Your task to perform on an android device: set an alarm Image 0: 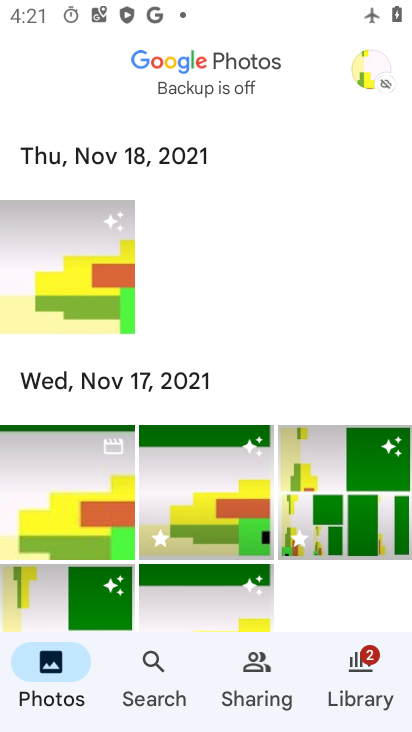
Step 0: press home button
Your task to perform on an android device: set an alarm Image 1: 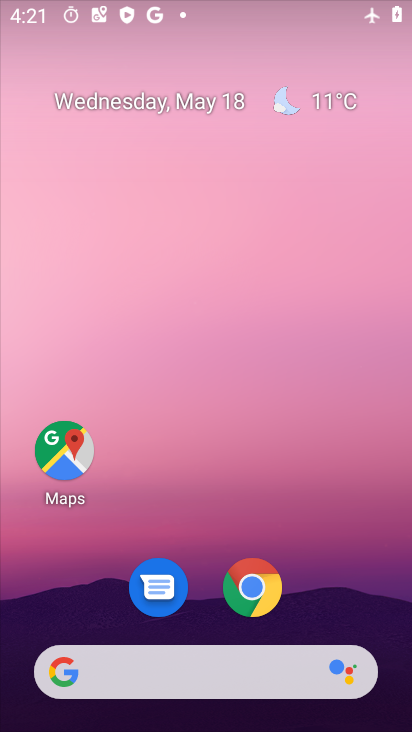
Step 1: drag from (226, 583) to (289, 136)
Your task to perform on an android device: set an alarm Image 2: 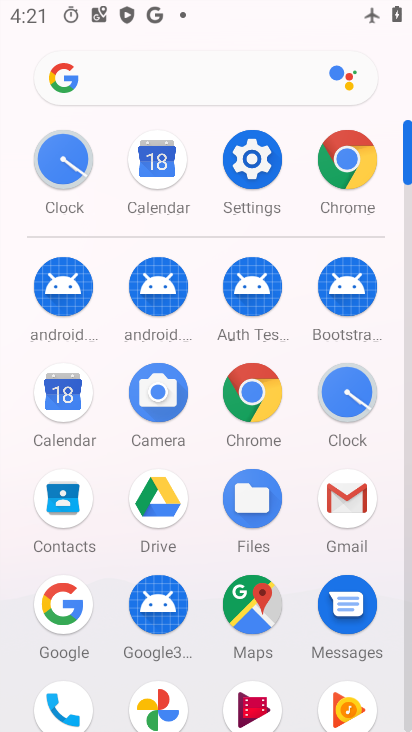
Step 2: click (343, 415)
Your task to perform on an android device: set an alarm Image 3: 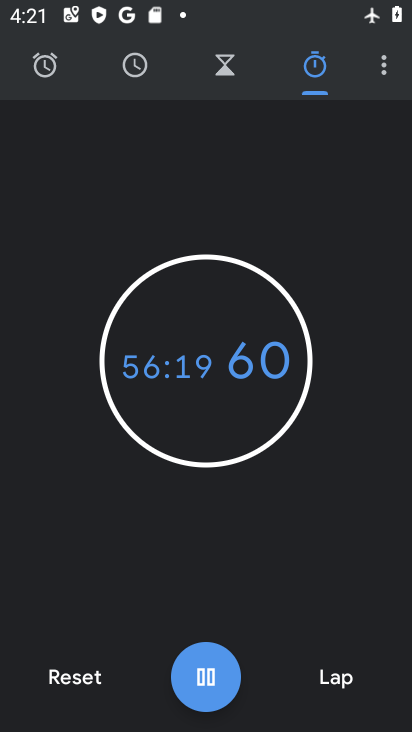
Step 3: click (46, 77)
Your task to perform on an android device: set an alarm Image 4: 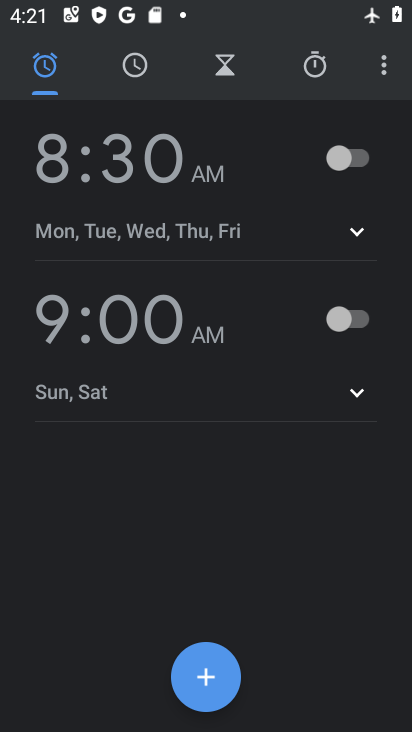
Step 4: click (203, 690)
Your task to perform on an android device: set an alarm Image 5: 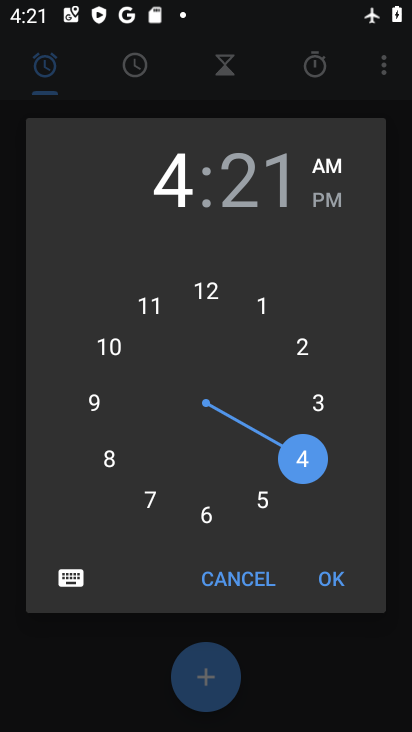
Step 5: click (335, 579)
Your task to perform on an android device: set an alarm Image 6: 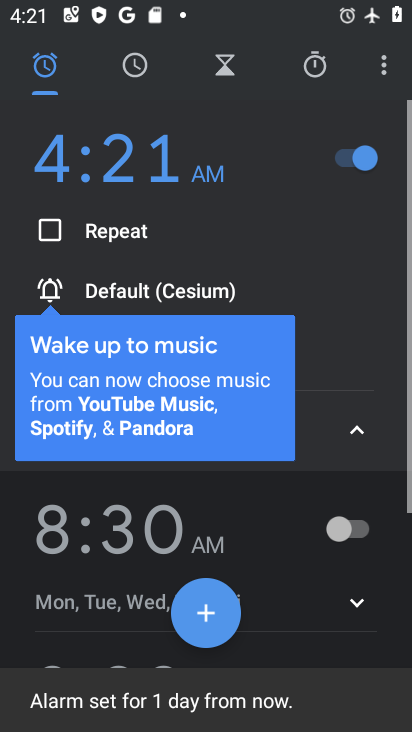
Step 6: task complete